Your task to perform on an android device: Go to Amazon Image 0: 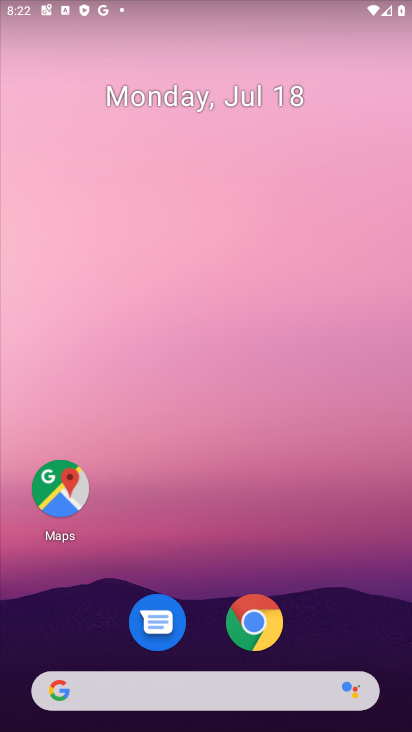
Step 0: drag from (200, 723) to (258, 277)
Your task to perform on an android device: Go to Amazon Image 1: 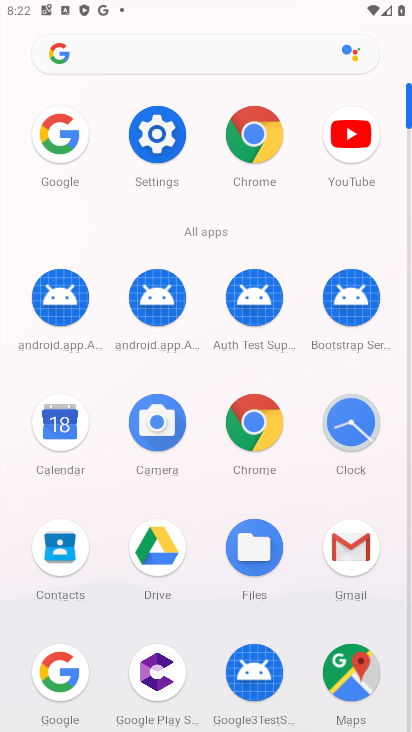
Step 1: click (263, 153)
Your task to perform on an android device: Go to Amazon Image 2: 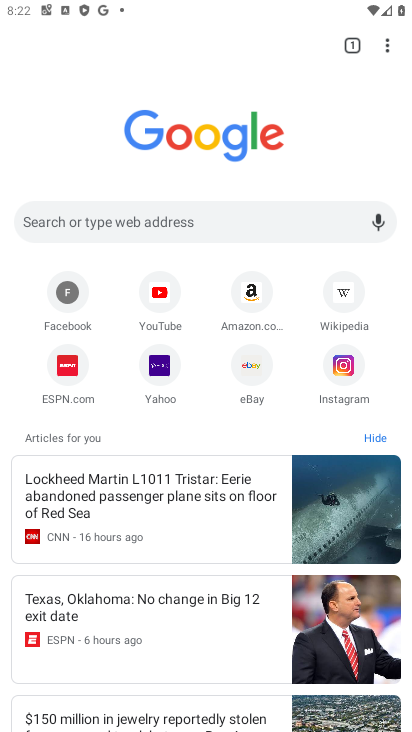
Step 2: click (252, 304)
Your task to perform on an android device: Go to Amazon Image 3: 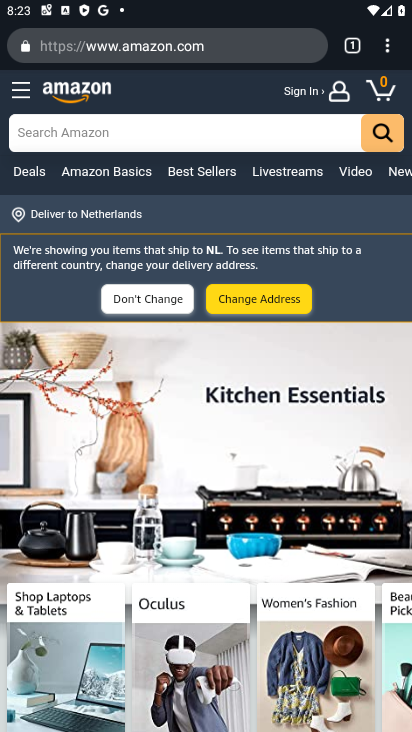
Step 3: task complete